Your task to perform on an android device: Play the last video I watched on Youtube Image 0: 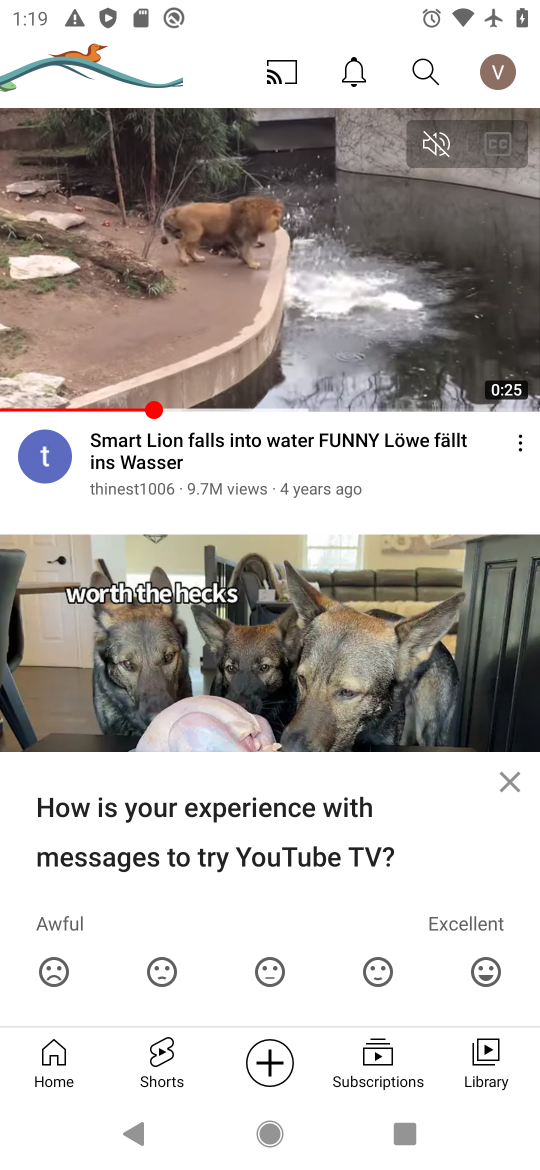
Step 0: click (498, 789)
Your task to perform on an android device: Play the last video I watched on Youtube Image 1: 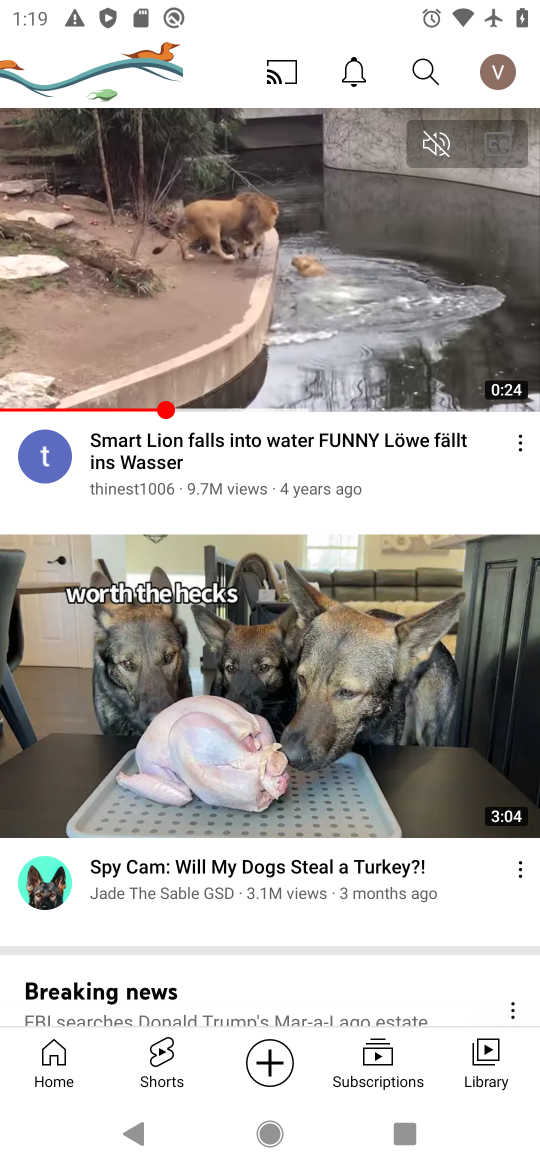
Step 1: click (497, 1064)
Your task to perform on an android device: Play the last video I watched on Youtube Image 2: 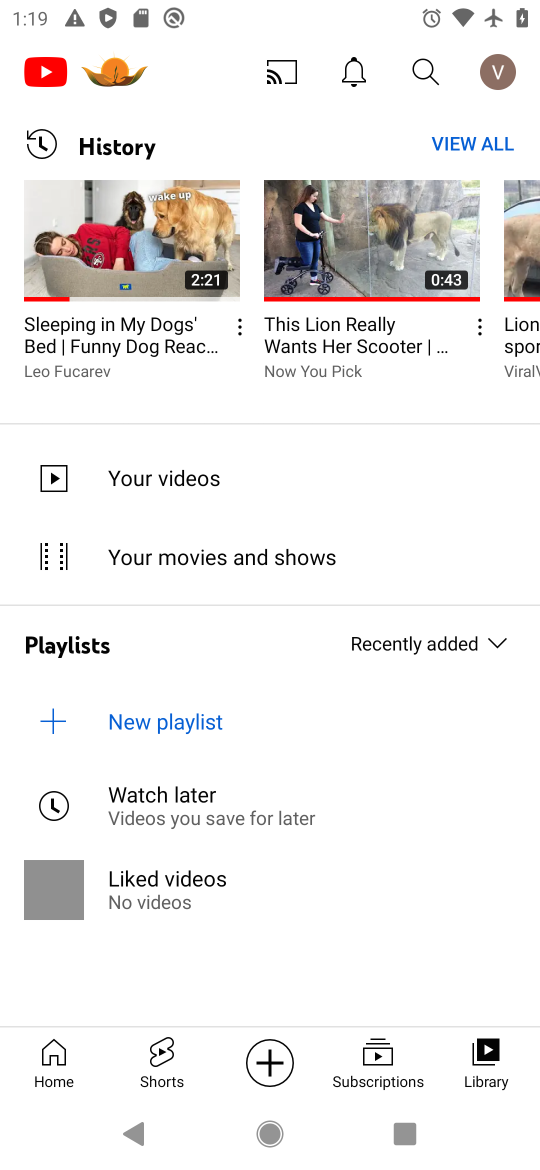
Step 2: click (149, 319)
Your task to perform on an android device: Play the last video I watched on Youtube Image 3: 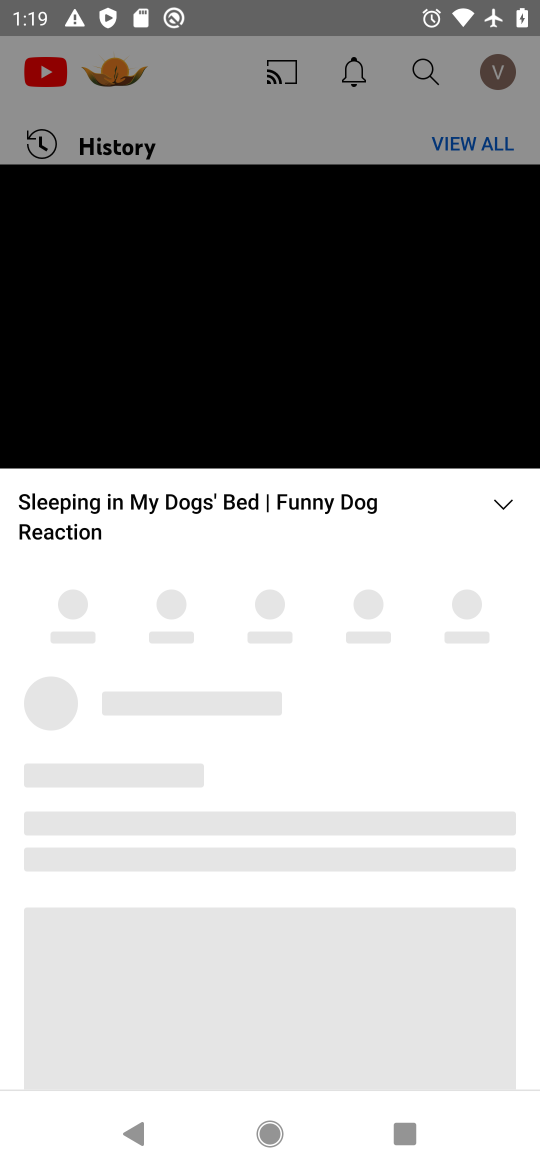
Step 3: task complete